Your task to perform on an android device: Go to Reddit.com Image 0: 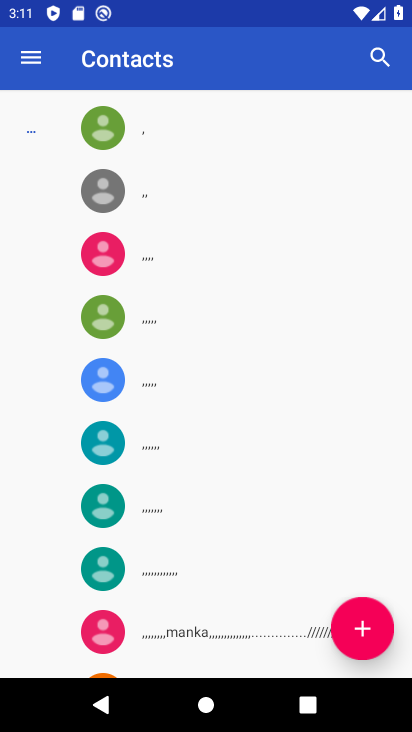
Step 0: press home button
Your task to perform on an android device: Go to Reddit.com Image 1: 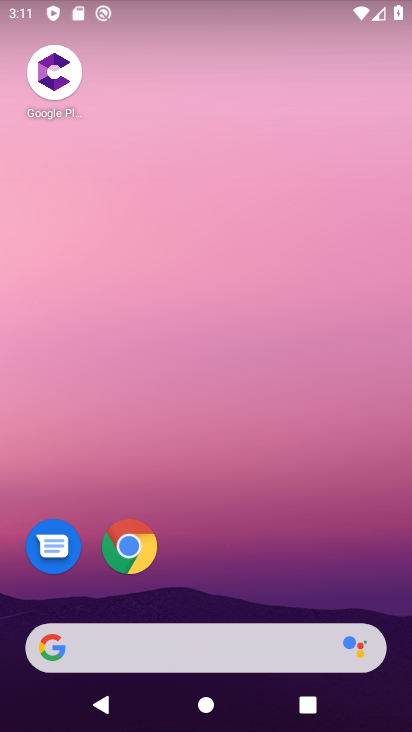
Step 1: drag from (134, 621) to (173, 255)
Your task to perform on an android device: Go to Reddit.com Image 2: 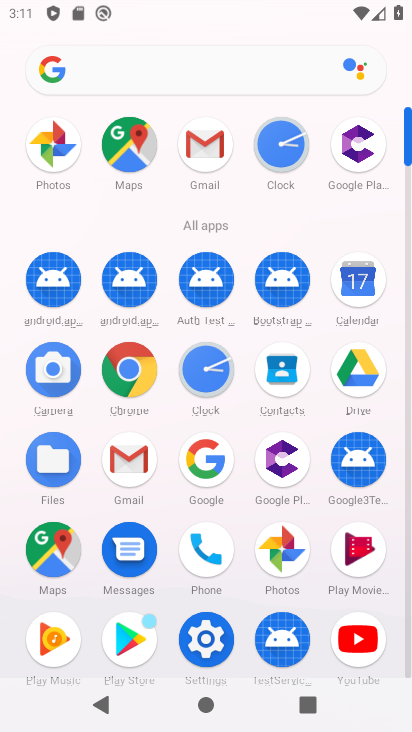
Step 2: click (195, 460)
Your task to perform on an android device: Go to Reddit.com Image 3: 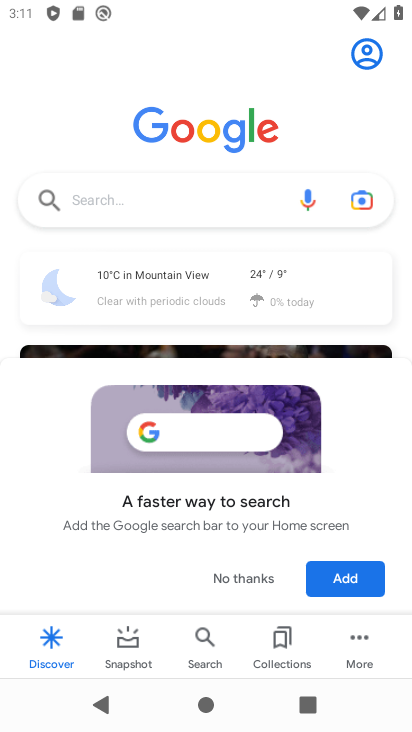
Step 3: click (104, 209)
Your task to perform on an android device: Go to Reddit.com Image 4: 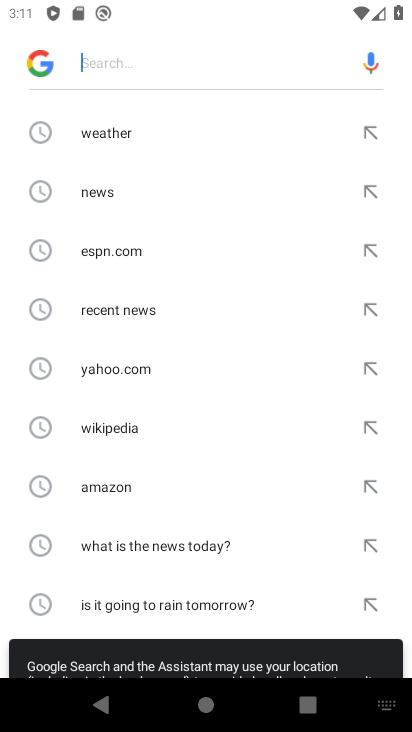
Step 4: drag from (111, 590) to (142, 213)
Your task to perform on an android device: Go to Reddit.com Image 5: 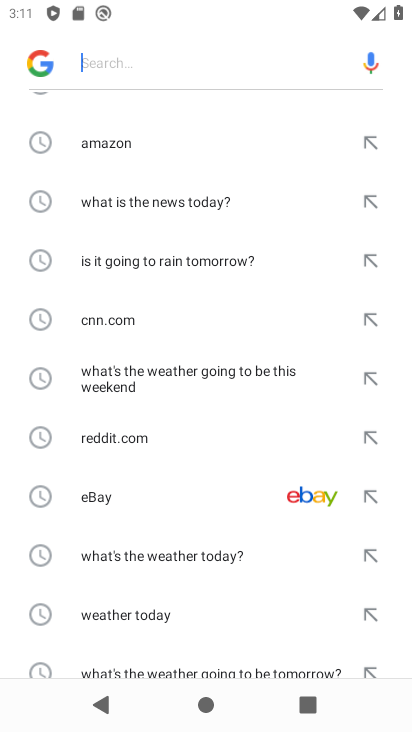
Step 5: drag from (163, 596) to (177, 283)
Your task to perform on an android device: Go to Reddit.com Image 6: 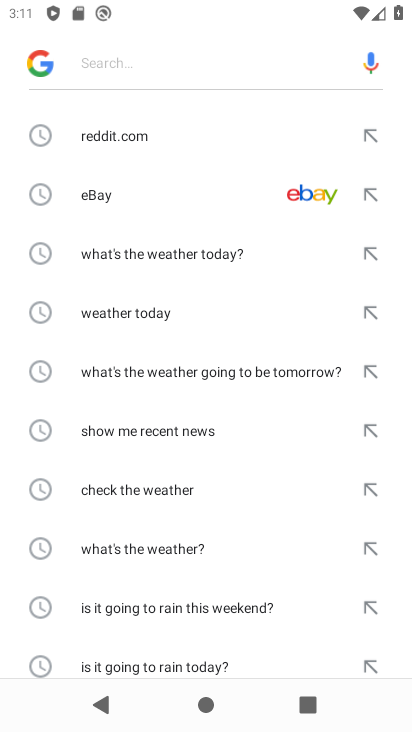
Step 6: click (112, 163)
Your task to perform on an android device: Go to Reddit.com Image 7: 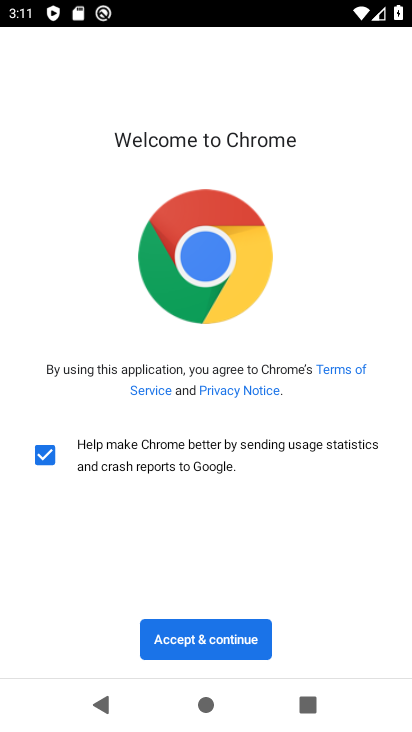
Step 7: click (231, 642)
Your task to perform on an android device: Go to Reddit.com Image 8: 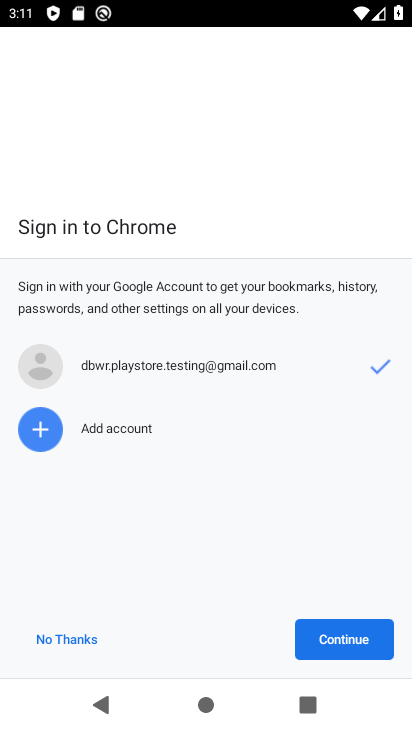
Step 8: click (348, 639)
Your task to perform on an android device: Go to Reddit.com Image 9: 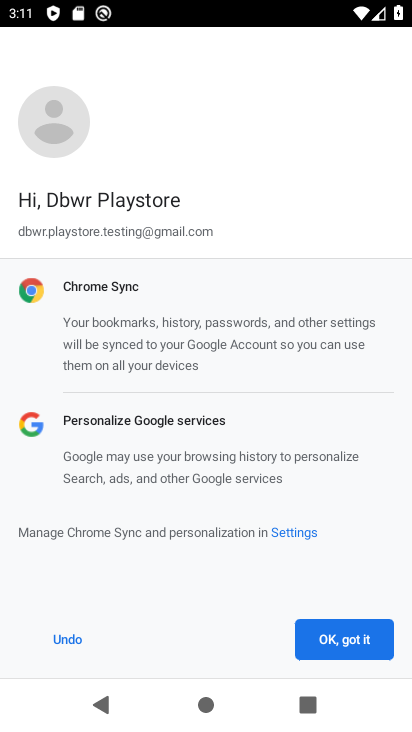
Step 9: click (348, 637)
Your task to perform on an android device: Go to Reddit.com Image 10: 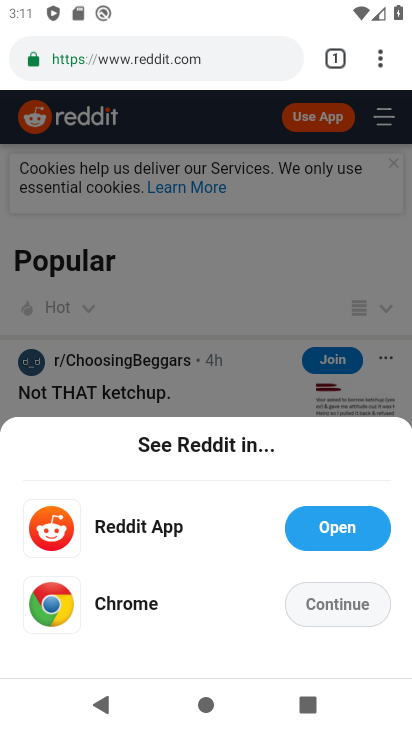
Step 10: task complete